Your task to perform on an android device: change the clock display to show seconds Image 0: 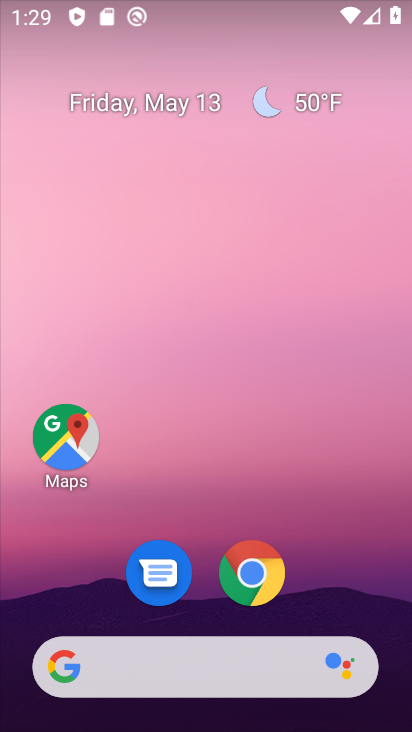
Step 0: drag from (323, 626) to (256, 182)
Your task to perform on an android device: change the clock display to show seconds Image 1: 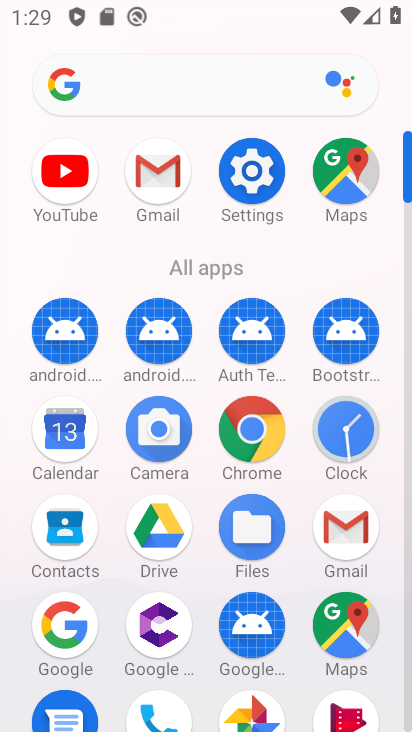
Step 1: click (244, 200)
Your task to perform on an android device: change the clock display to show seconds Image 2: 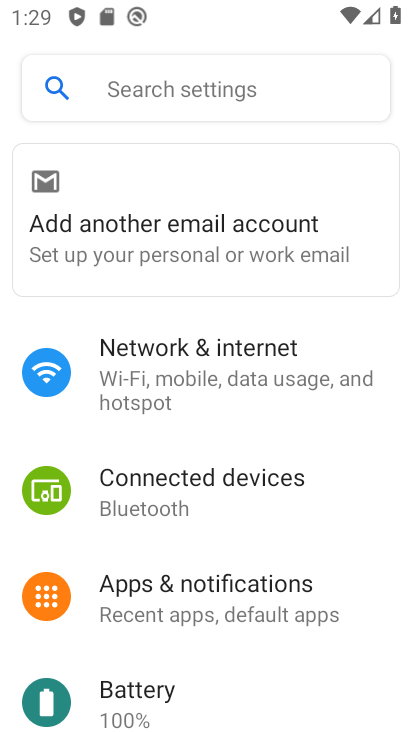
Step 2: press back button
Your task to perform on an android device: change the clock display to show seconds Image 3: 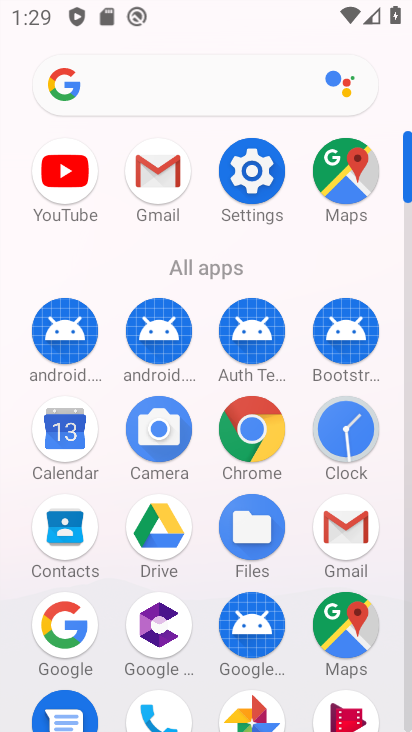
Step 3: click (345, 455)
Your task to perform on an android device: change the clock display to show seconds Image 4: 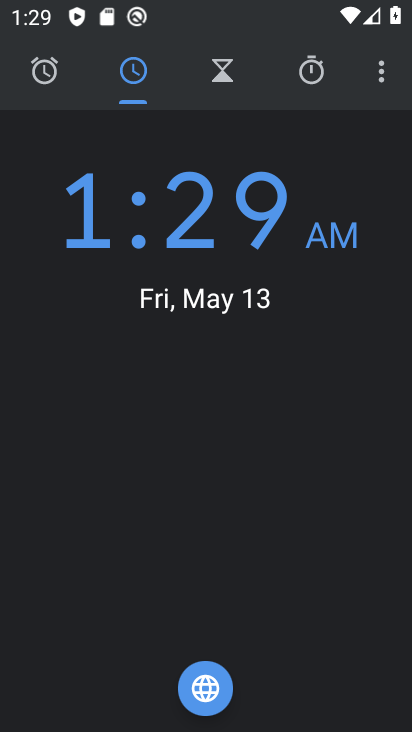
Step 4: click (385, 68)
Your task to perform on an android device: change the clock display to show seconds Image 5: 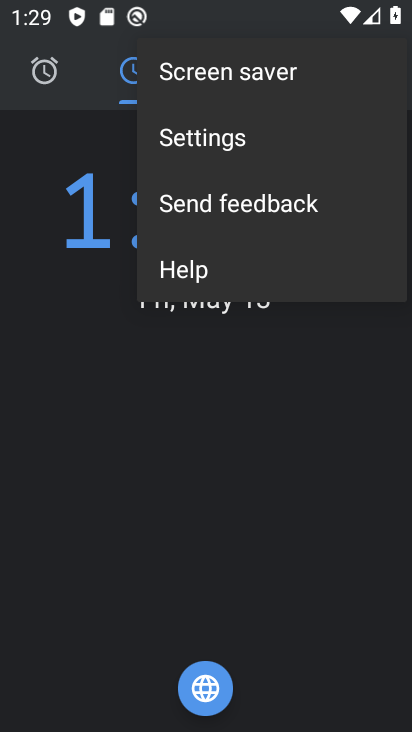
Step 5: click (248, 142)
Your task to perform on an android device: change the clock display to show seconds Image 6: 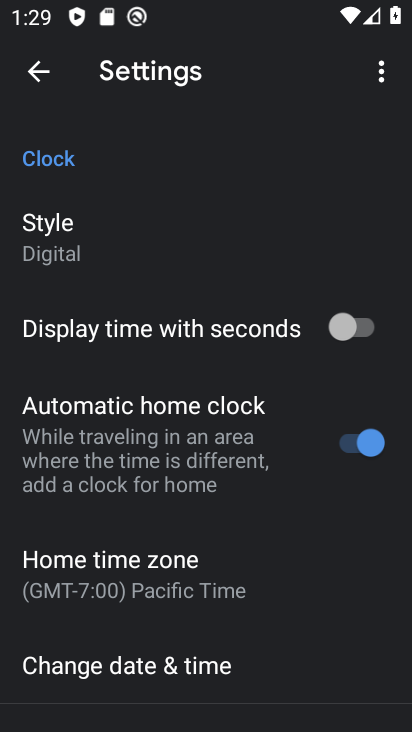
Step 6: click (366, 332)
Your task to perform on an android device: change the clock display to show seconds Image 7: 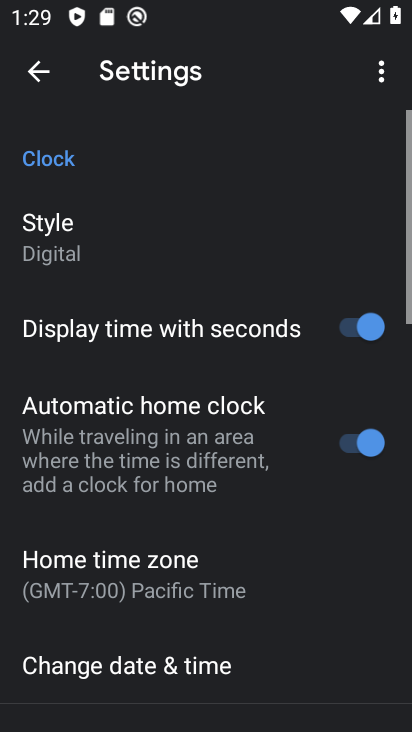
Step 7: task complete